Your task to perform on an android device: Open battery settings Image 0: 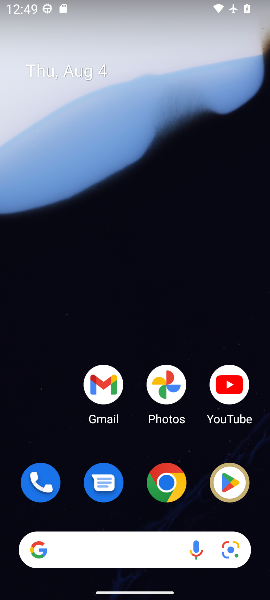
Step 0: drag from (141, 443) to (141, 115)
Your task to perform on an android device: Open battery settings Image 1: 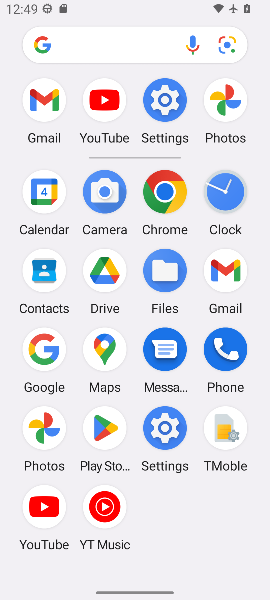
Step 1: click (153, 112)
Your task to perform on an android device: Open battery settings Image 2: 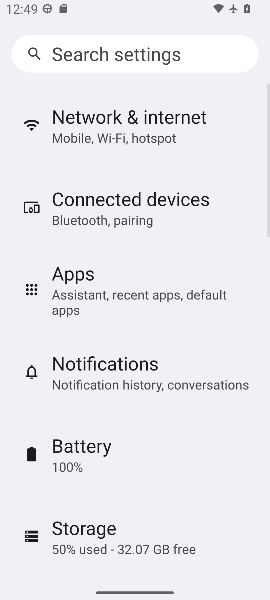
Step 2: click (125, 438)
Your task to perform on an android device: Open battery settings Image 3: 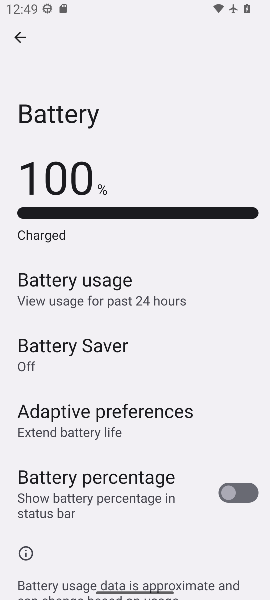
Step 3: task complete